Your task to perform on an android device: open app "Calculator" Image 0: 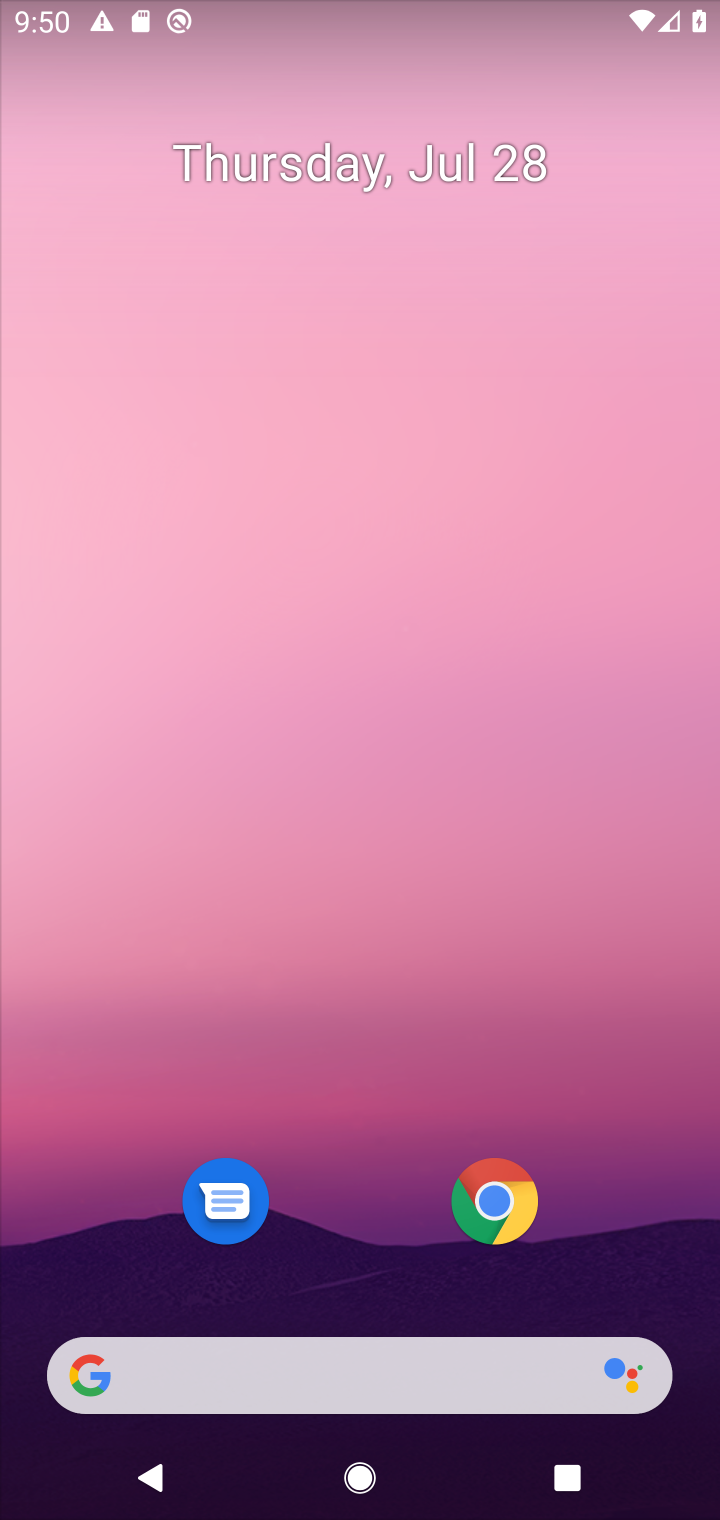
Step 0: drag from (425, 401) to (468, 195)
Your task to perform on an android device: open app "Calculator" Image 1: 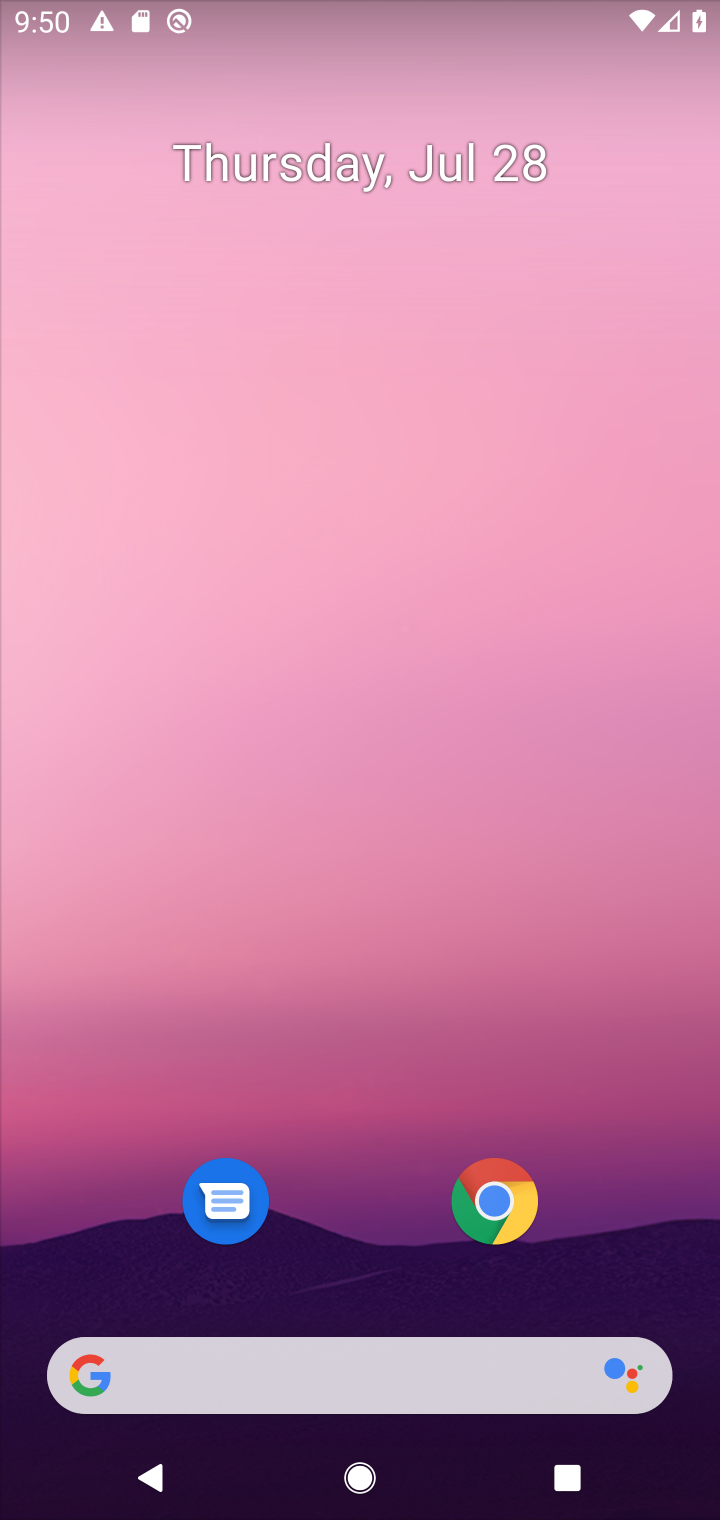
Step 1: drag from (366, 1048) to (649, 1159)
Your task to perform on an android device: open app "Calculator" Image 2: 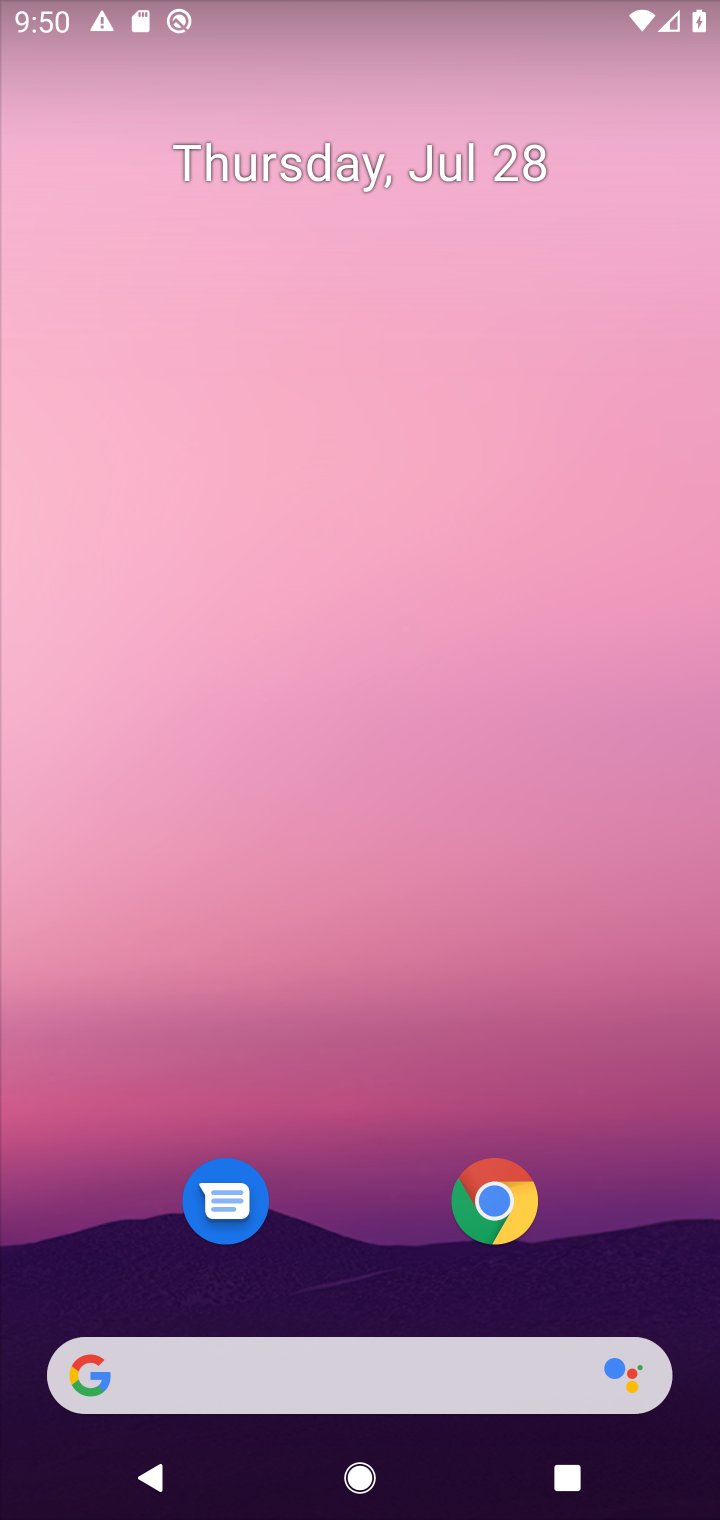
Step 2: drag from (332, 1253) to (329, 68)
Your task to perform on an android device: open app "Calculator" Image 3: 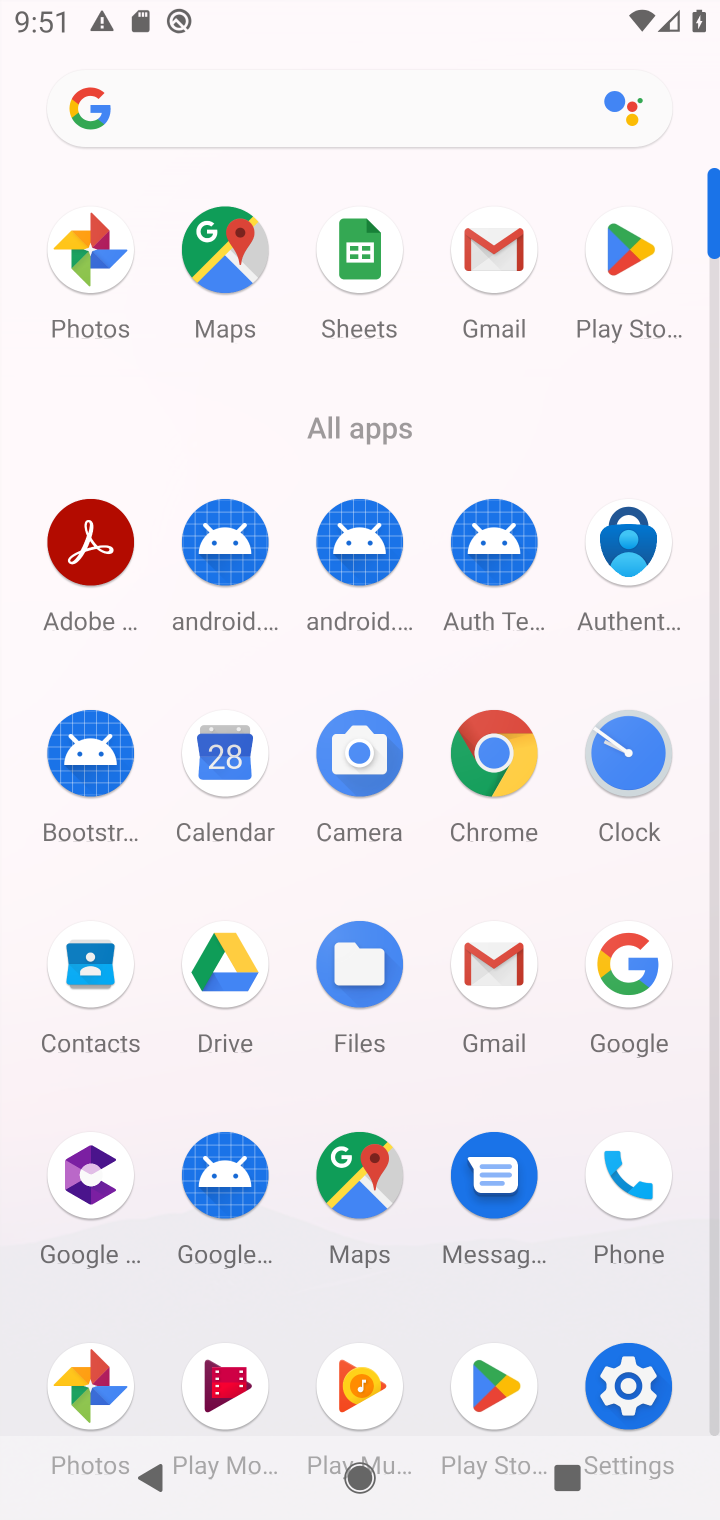
Step 3: click (616, 266)
Your task to perform on an android device: open app "Calculator" Image 4: 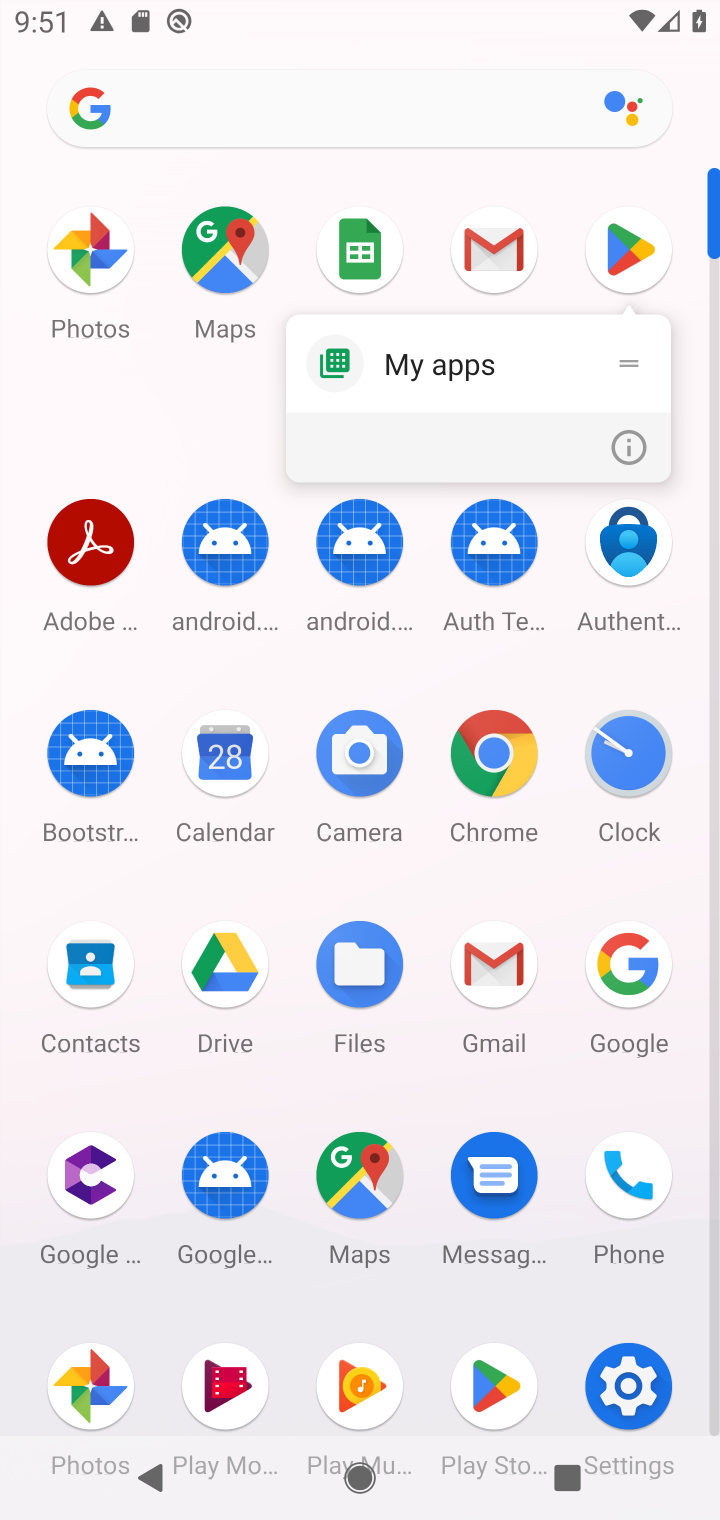
Step 4: click (638, 230)
Your task to perform on an android device: open app "Calculator" Image 5: 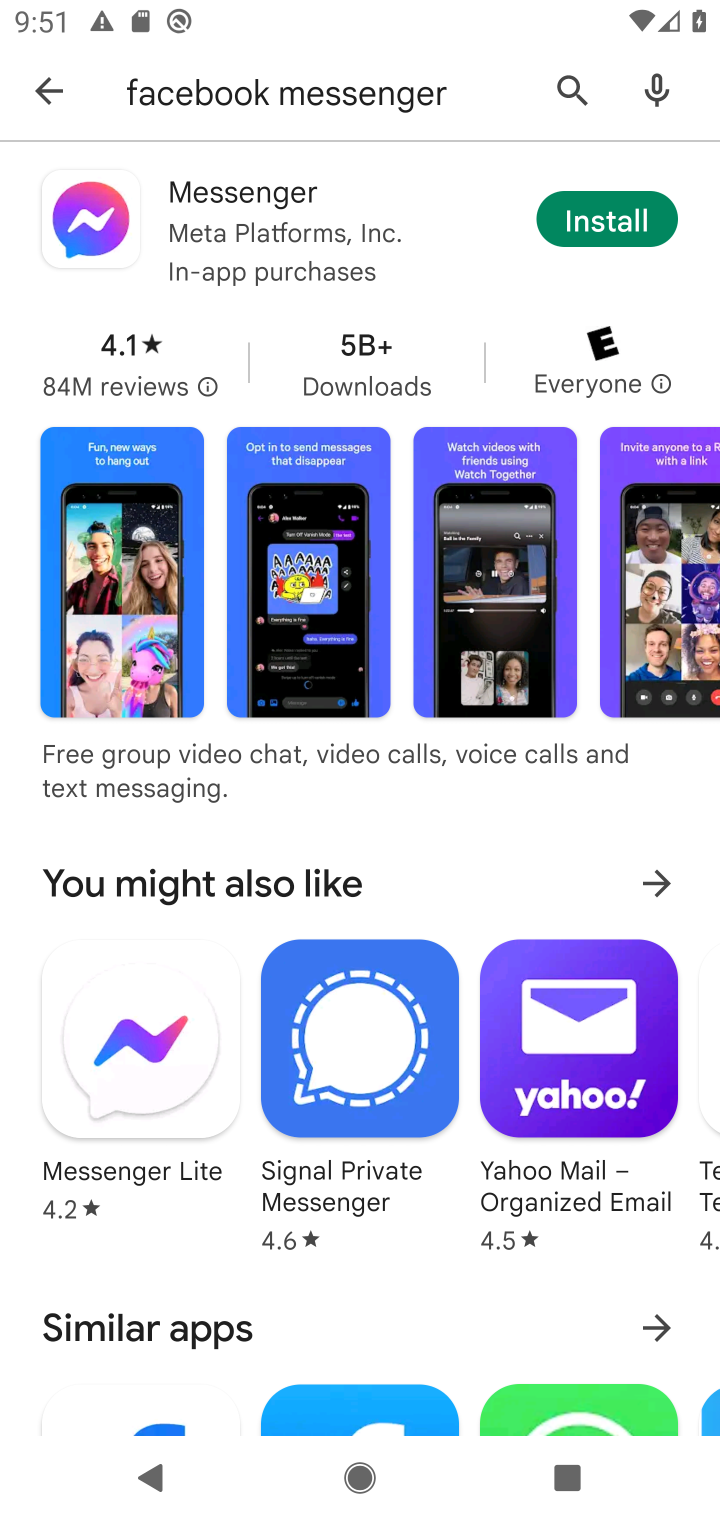
Step 5: click (285, 88)
Your task to perform on an android device: open app "Calculator" Image 6: 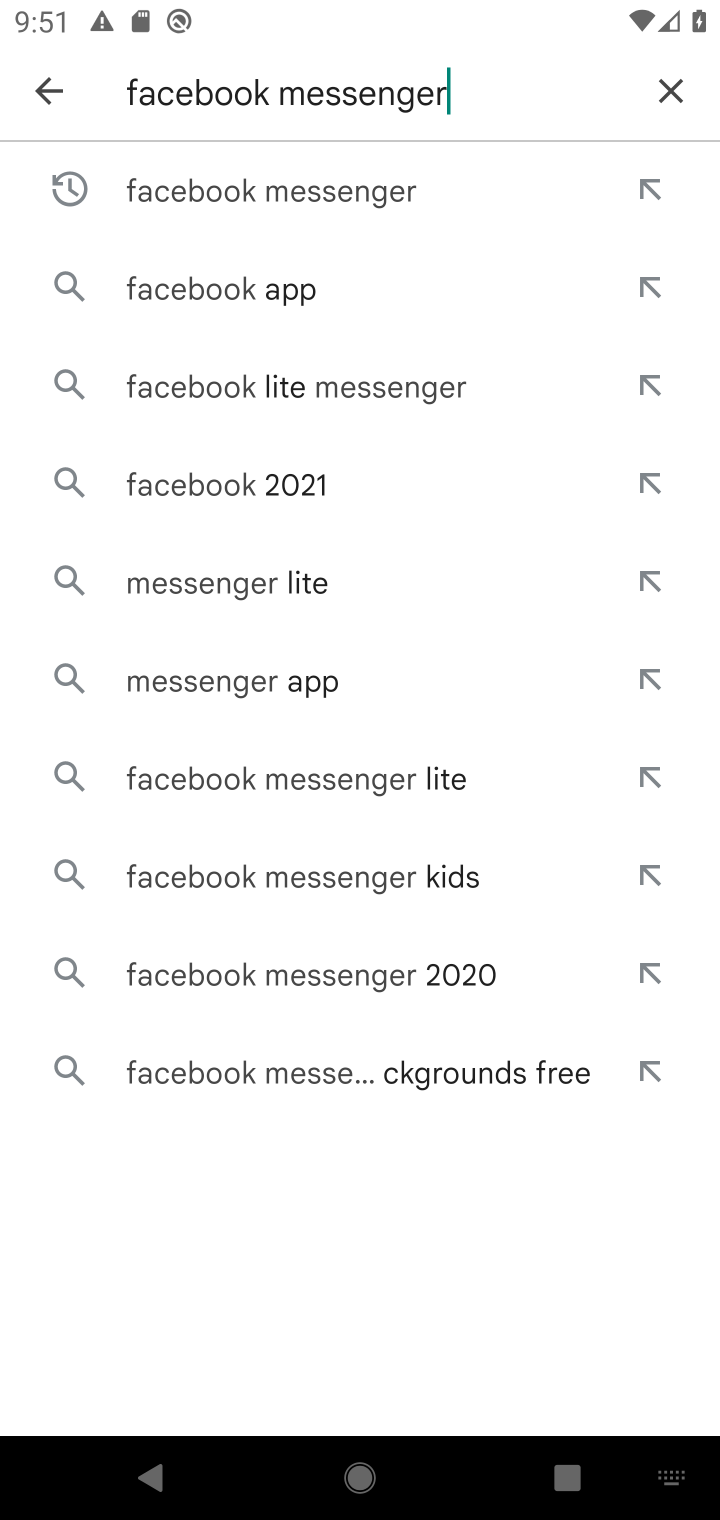
Step 6: click (668, 83)
Your task to perform on an android device: open app "Calculator" Image 7: 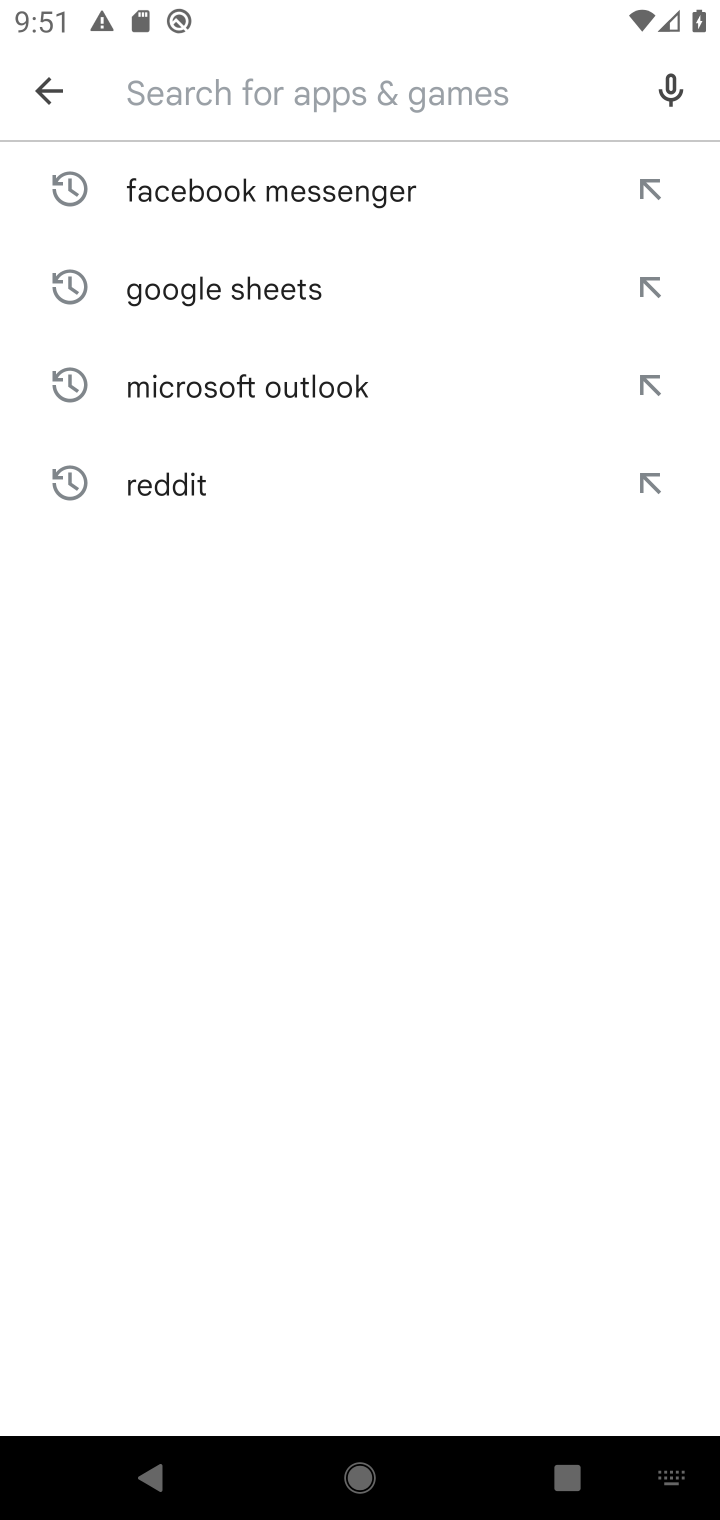
Step 7: type "calculator"
Your task to perform on an android device: open app "Calculator" Image 8: 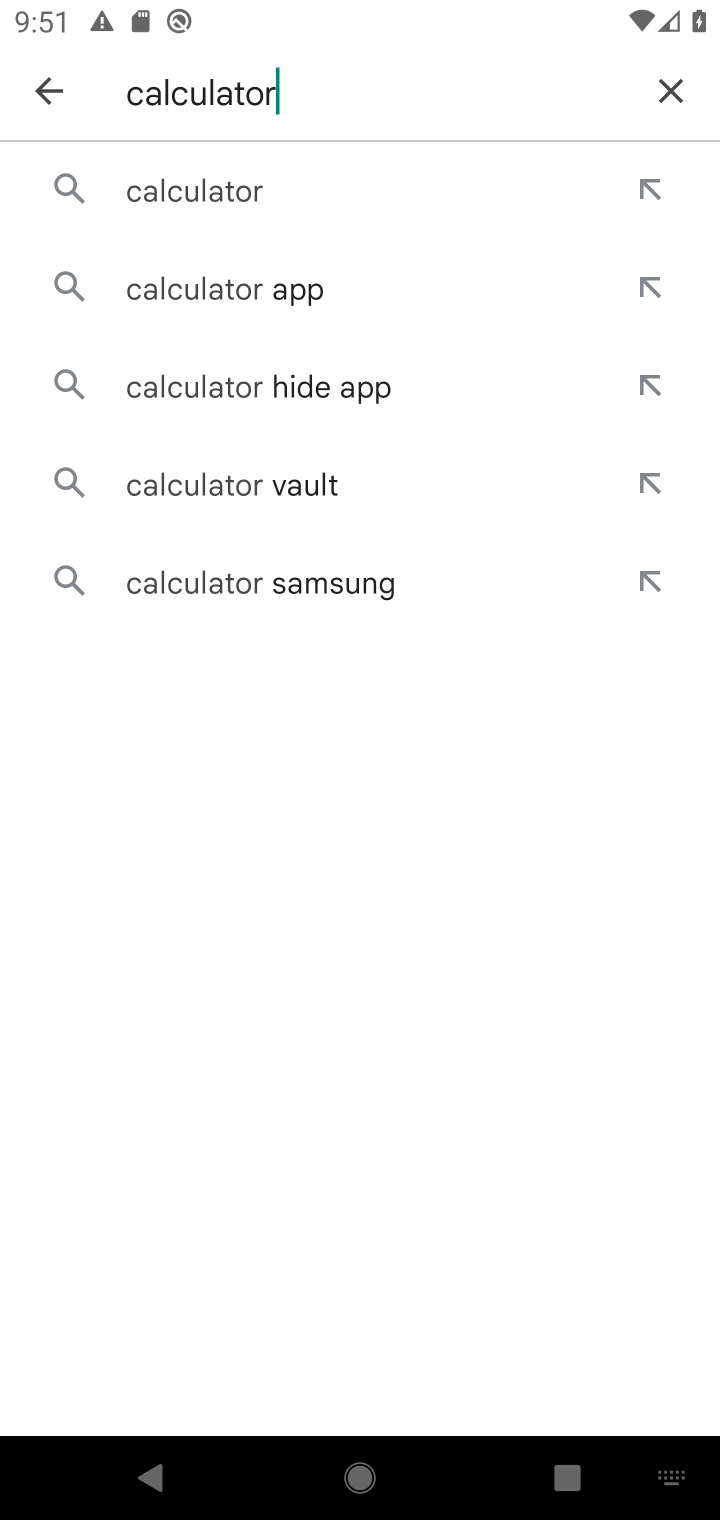
Step 8: click (284, 203)
Your task to perform on an android device: open app "Calculator" Image 9: 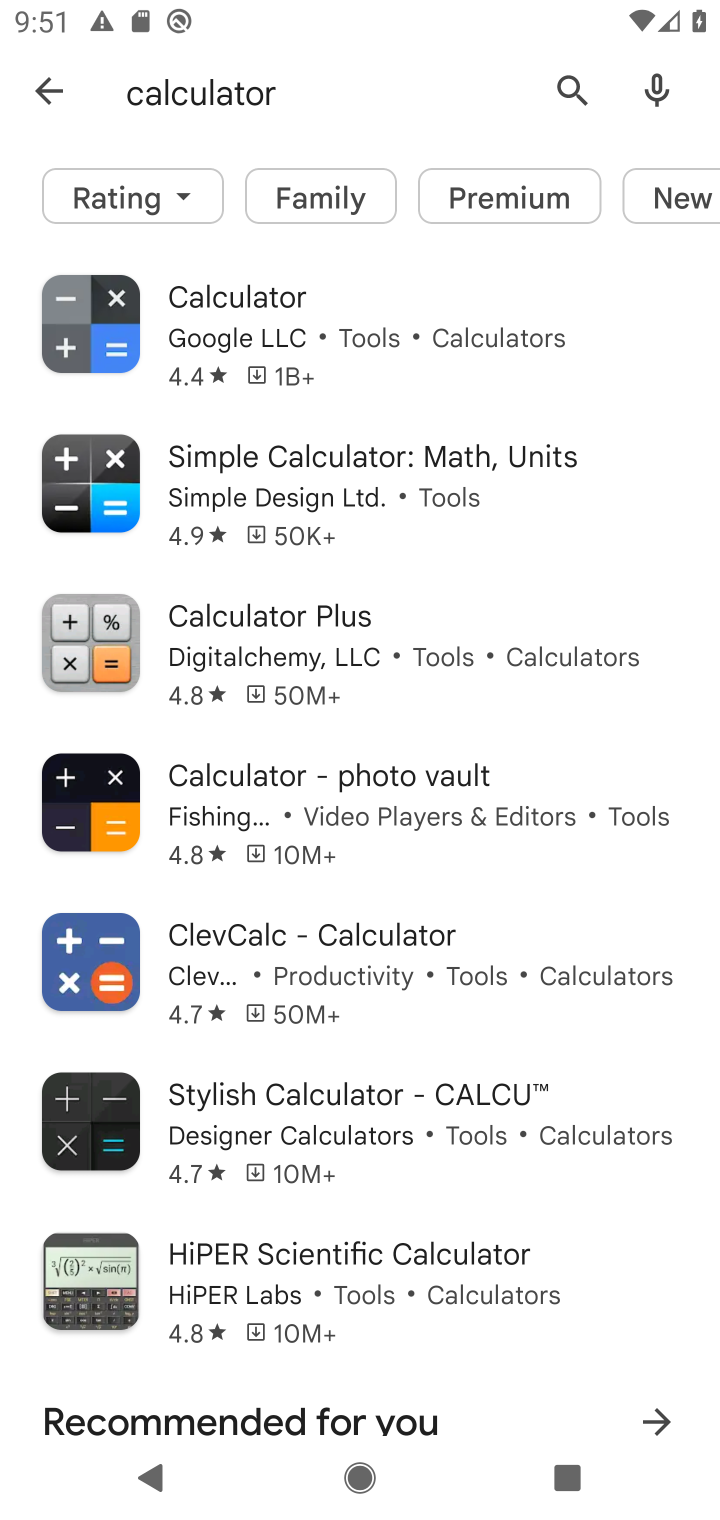
Step 9: click (272, 328)
Your task to perform on an android device: open app "Calculator" Image 10: 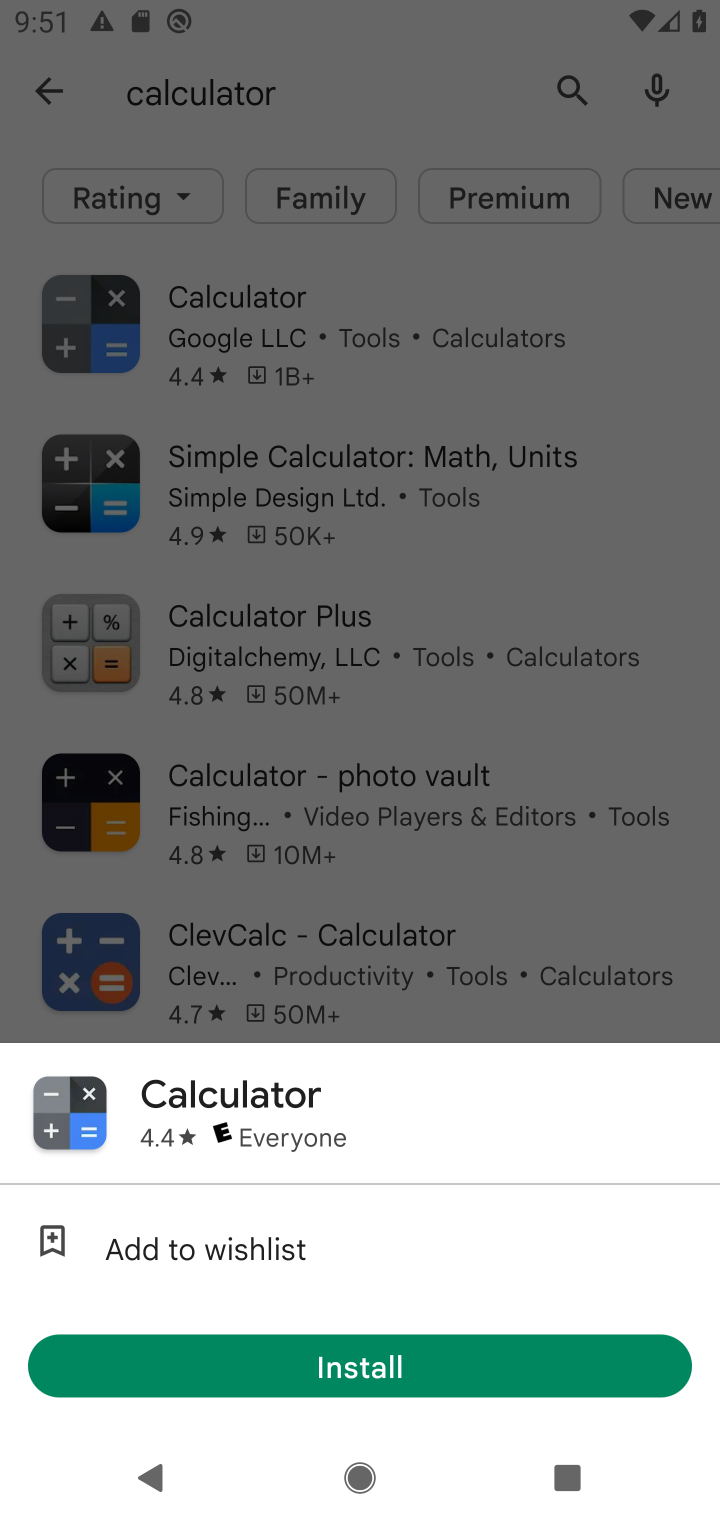
Step 10: task complete